Your task to perform on an android device: Open Wikipedia Image 0: 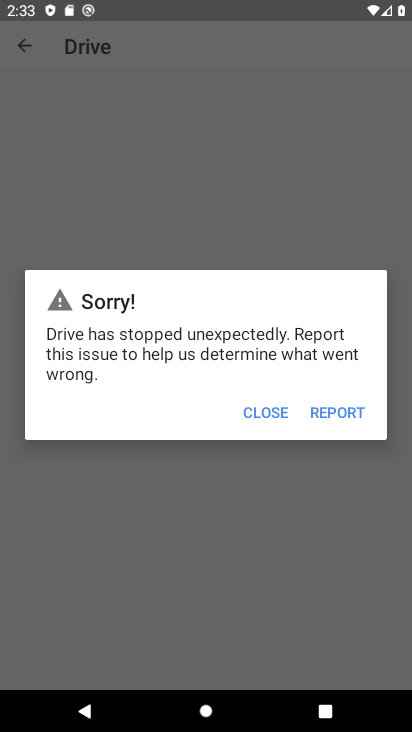
Step 0: press home button
Your task to perform on an android device: Open Wikipedia Image 1: 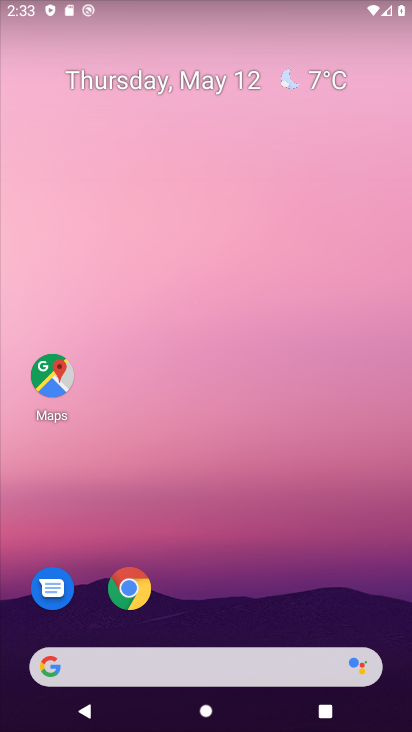
Step 1: drag from (225, 636) to (258, 153)
Your task to perform on an android device: Open Wikipedia Image 2: 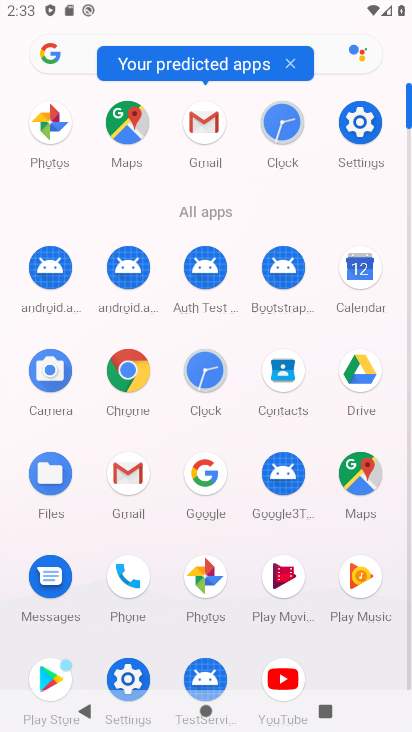
Step 2: click (142, 406)
Your task to perform on an android device: Open Wikipedia Image 3: 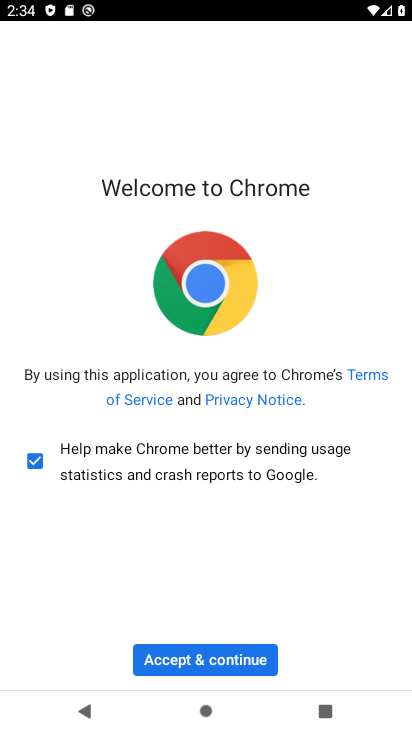
Step 3: click (182, 659)
Your task to perform on an android device: Open Wikipedia Image 4: 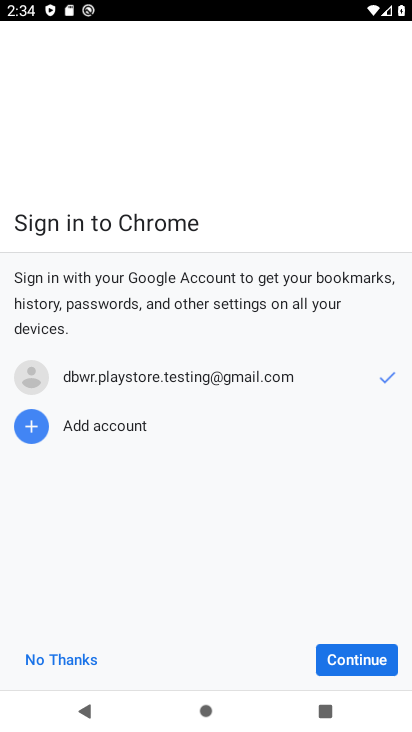
Step 4: click (346, 656)
Your task to perform on an android device: Open Wikipedia Image 5: 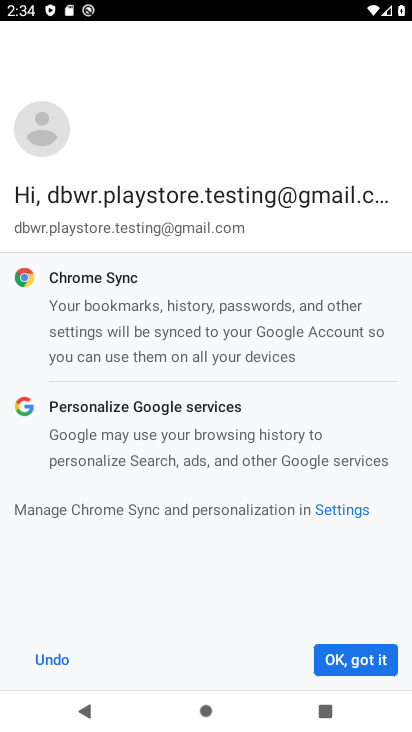
Step 5: click (340, 665)
Your task to perform on an android device: Open Wikipedia Image 6: 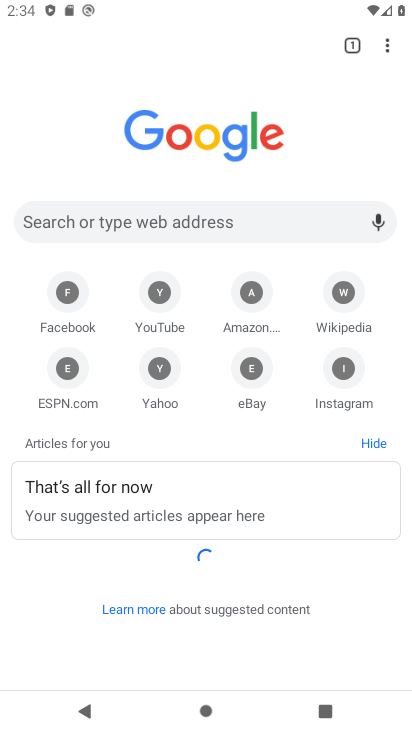
Step 6: click (353, 319)
Your task to perform on an android device: Open Wikipedia Image 7: 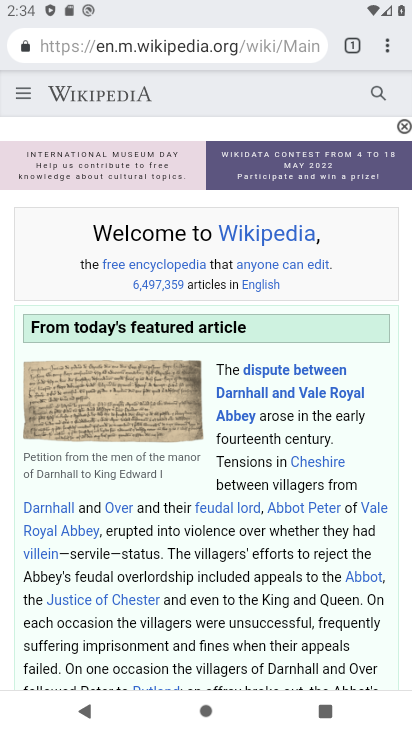
Step 7: task complete